Your task to perform on an android device: toggle wifi Image 0: 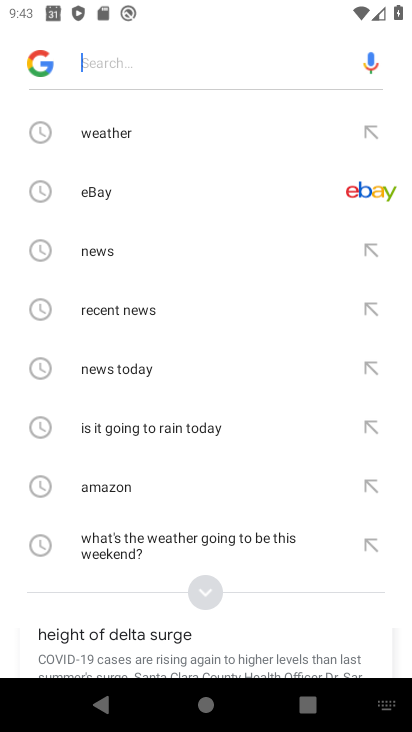
Step 0: press home button
Your task to perform on an android device: toggle wifi Image 1: 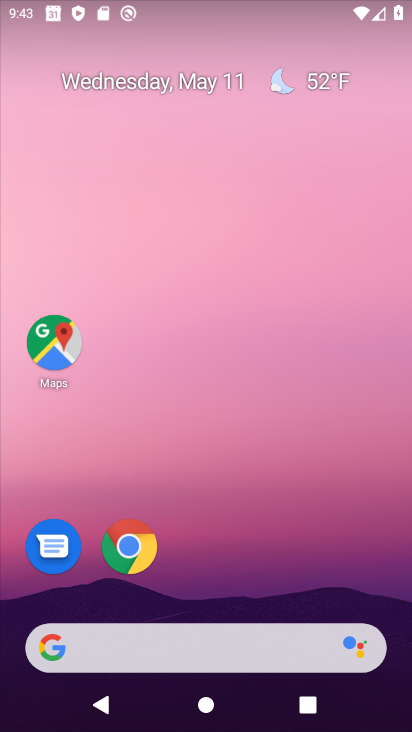
Step 1: drag from (192, 634) to (323, 8)
Your task to perform on an android device: toggle wifi Image 2: 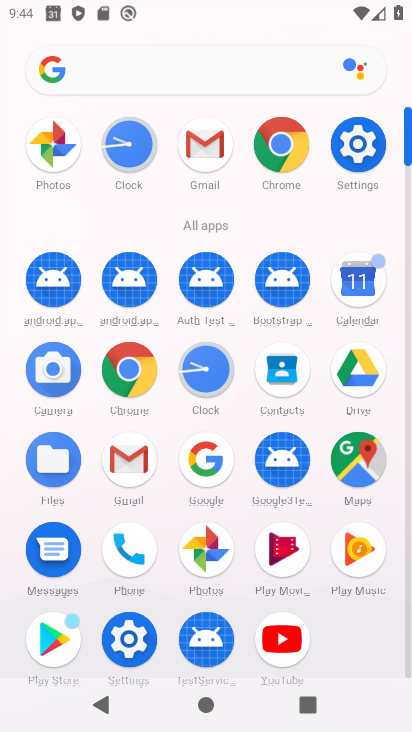
Step 2: click (361, 154)
Your task to perform on an android device: toggle wifi Image 3: 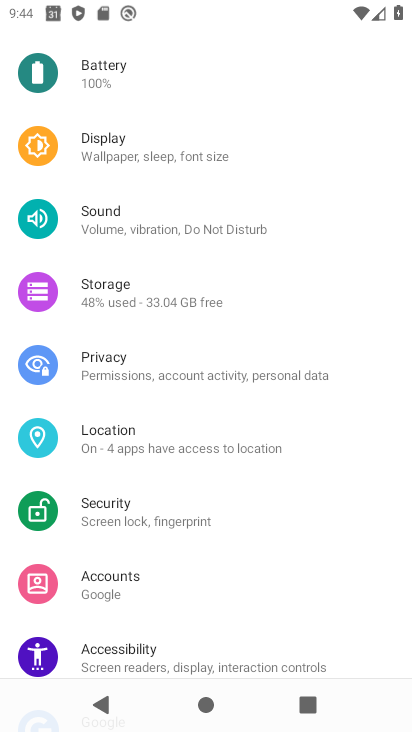
Step 3: drag from (209, 149) to (221, 627)
Your task to perform on an android device: toggle wifi Image 4: 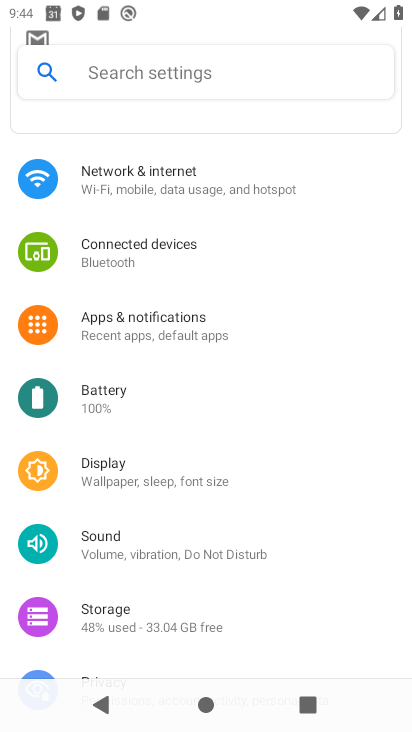
Step 4: click (122, 177)
Your task to perform on an android device: toggle wifi Image 5: 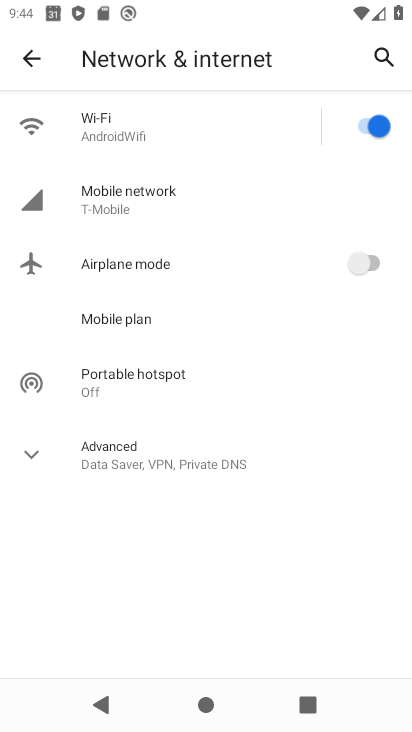
Step 5: click (377, 124)
Your task to perform on an android device: toggle wifi Image 6: 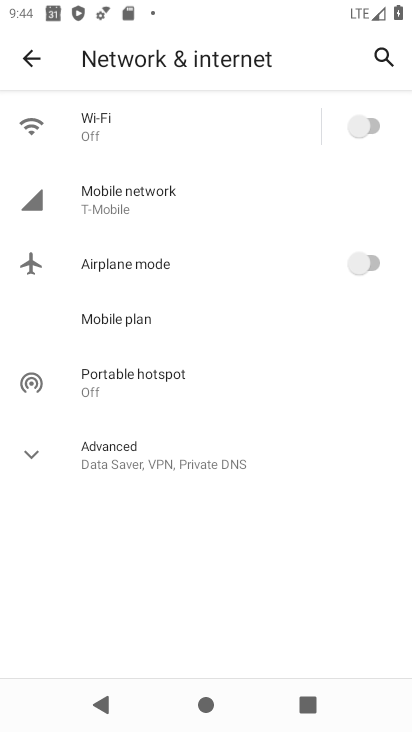
Step 6: task complete